Your task to perform on an android device: Open the stopwatch Image 0: 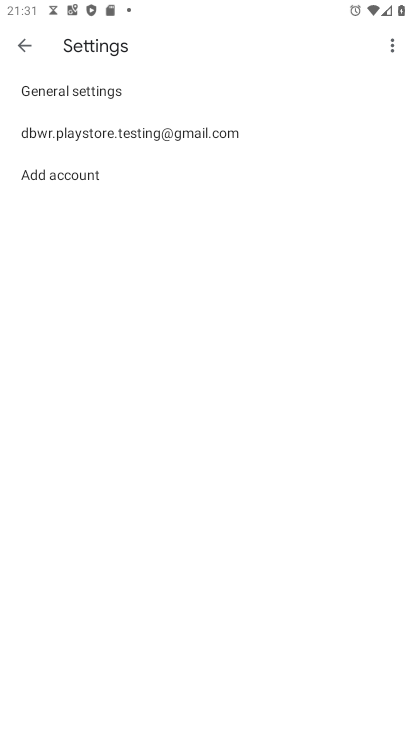
Step 0: press home button
Your task to perform on an android device: Open the stopwatch Image 1: 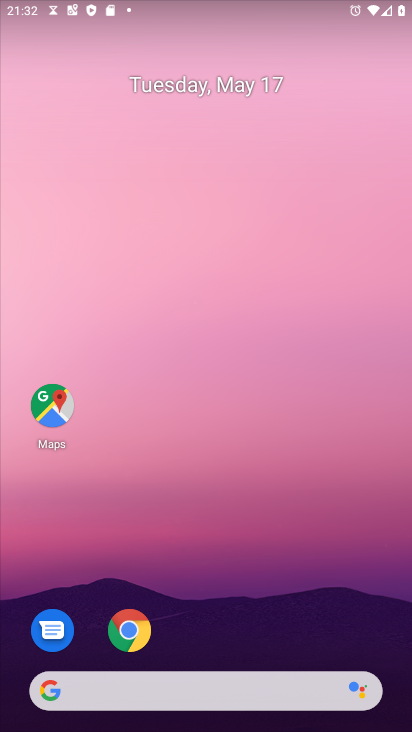
Step 1: drag from (227, 629) to (198, 57)
Your task to perform on an android device: Open the stopwatch Image 2: 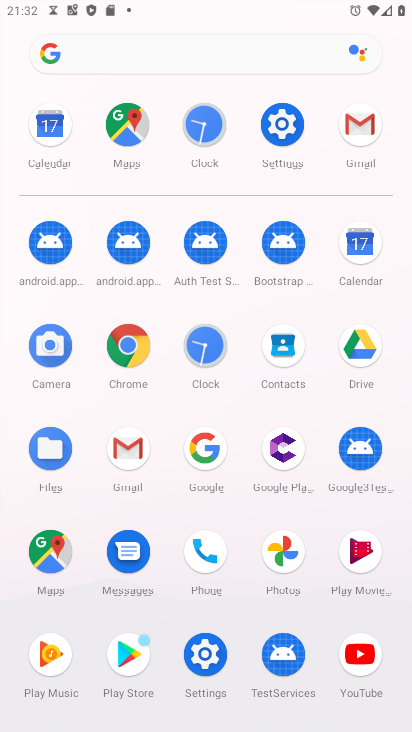
Step 2: click (216, 342)
Your task to perform on an android device: Open the stopwatch Image 3: 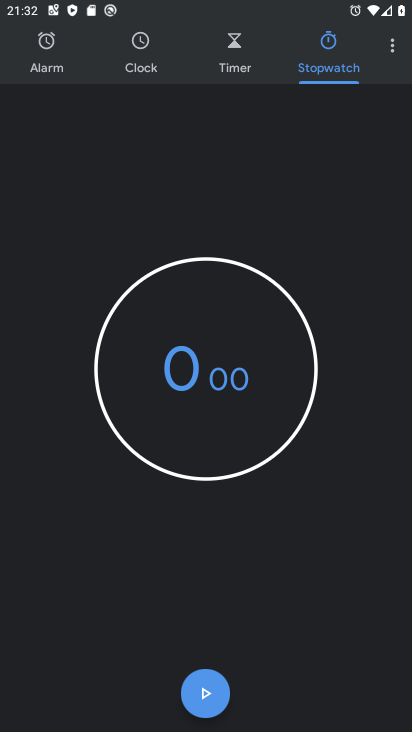
Step 3: task complete